Your task to perform on an android device: add a label to a message in the gmail app Image 0: 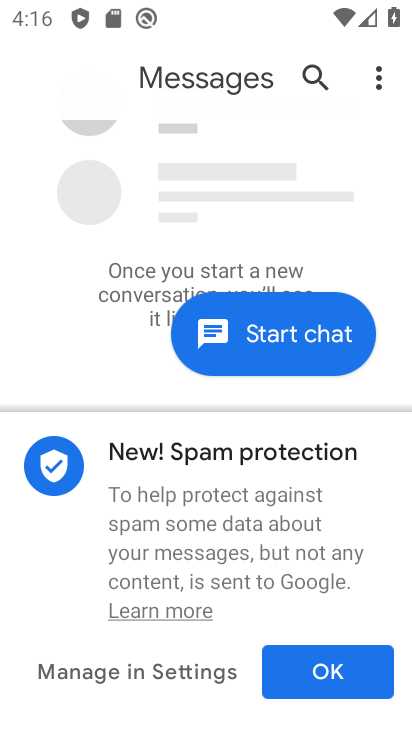
Step 0: press home button
Your task to perform on an android device: add a label to a message in the gmail app Image 1: 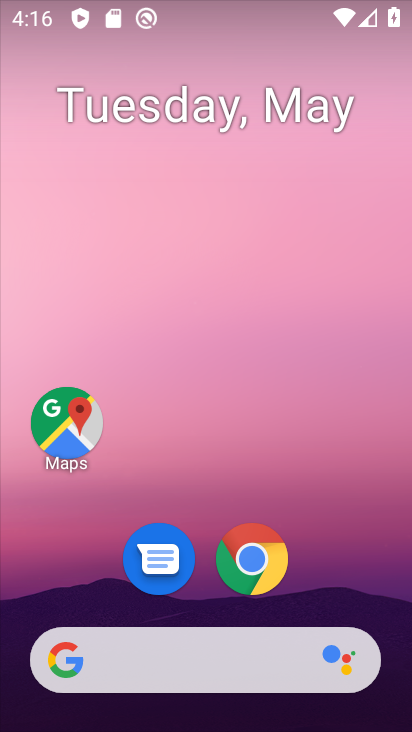
Step 1: drag from (370, 546) to (257, 14)
Your task to perform on an android device: add a label to a message in the gmail app Image 2: 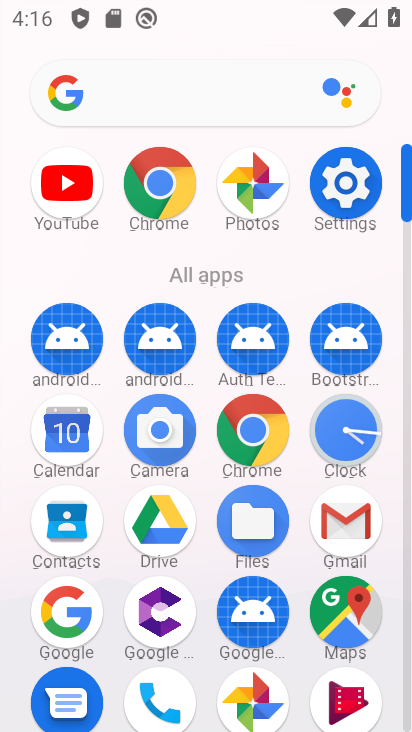
Step 2: click (343, 549)
Your task to perform on an android device: add a label to a message in the gmail app Image 3: 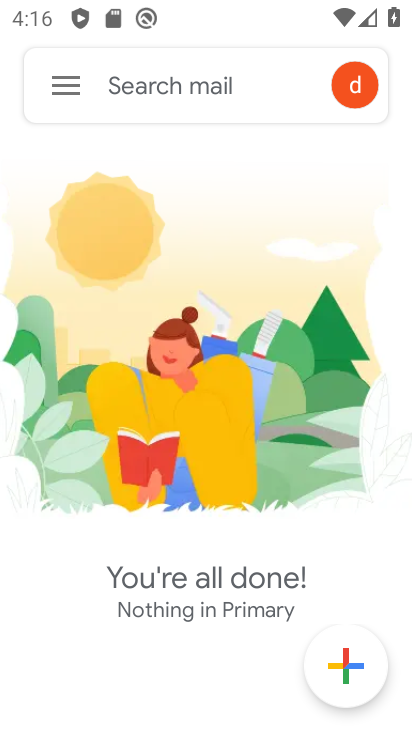
Step 3: click (75, 93)
Your task to perform on an android device: add a label to a message in the gmail app Image 4: 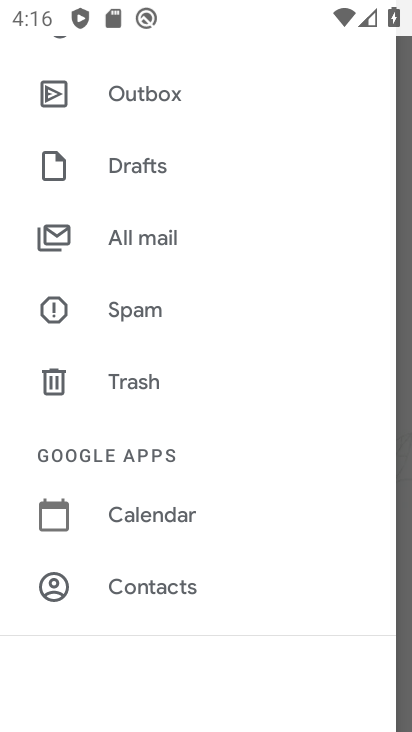
Step 4: click (149, 222)
Your task to perform on an android device: add a label to a message in the gmail app Image 5: 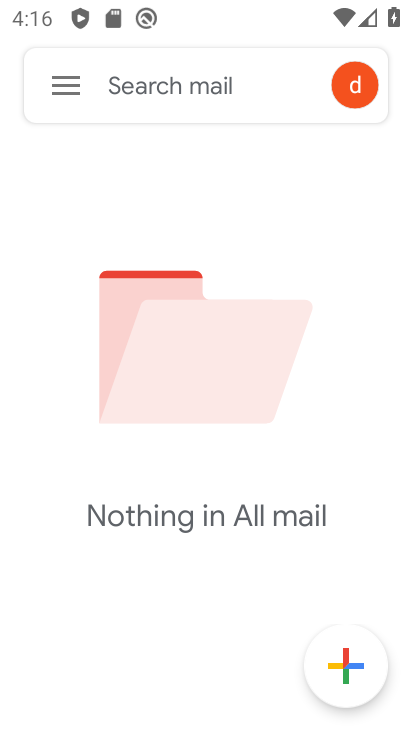
Step 5: task complete